Your task to perform on an android device: toggle sleep mode Image 0: 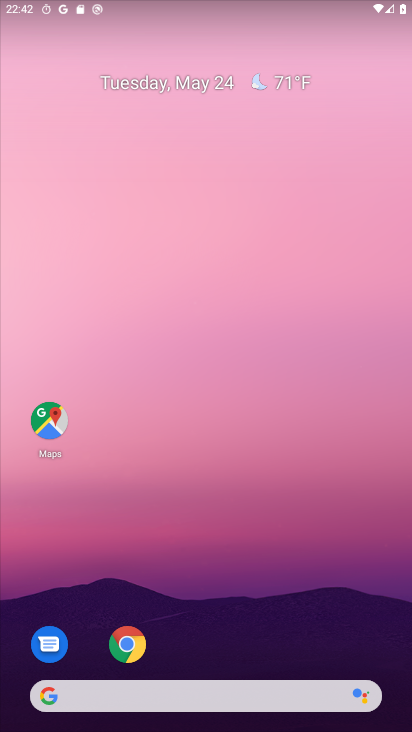
Step 0: drag from (261, 424) to (245, 78)
Your task to perform on an android device: toggle sleep mode Image 1: 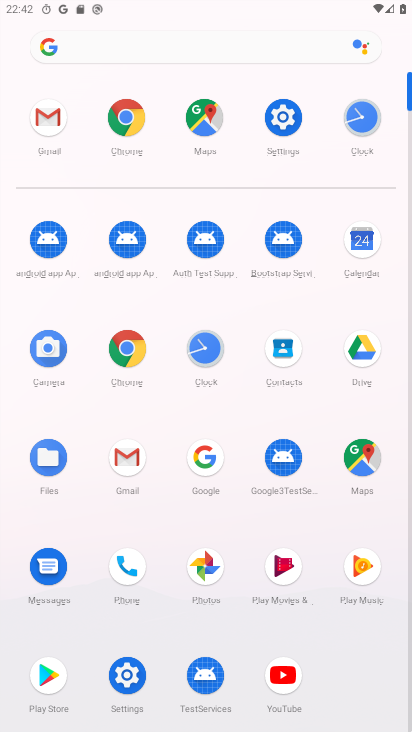
Step 1: click (297, 118)
Your task to perform on an android device: toggle sleep mode Image 2: 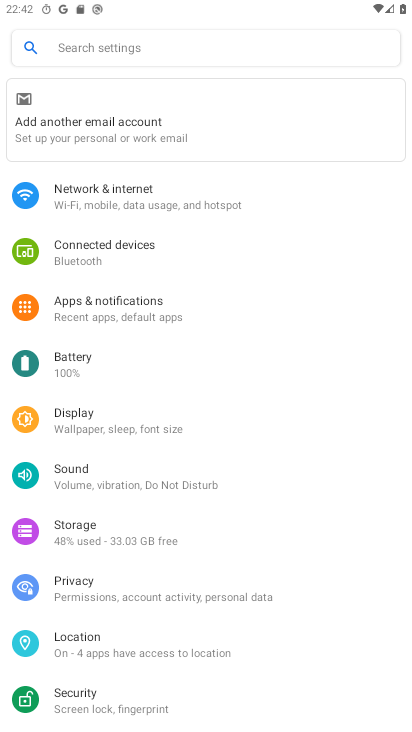
Step 2: click (78, 410)
Your task to perform on an android device: toggle sleep mode Image 3: 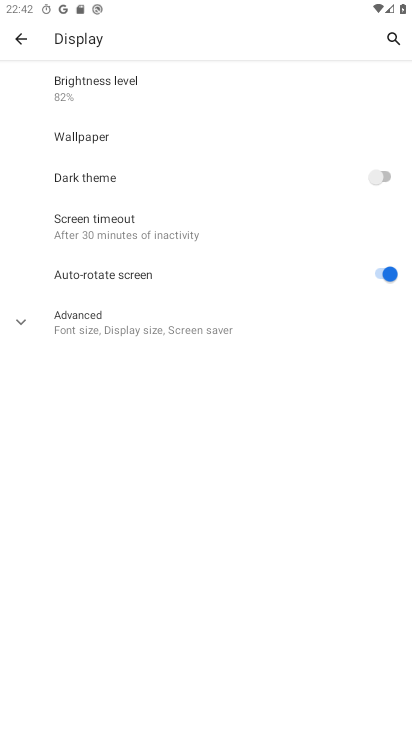
Step 3: task complete